Your task to perform on an android device: uninstall "Yahoo Mail" Image 0: 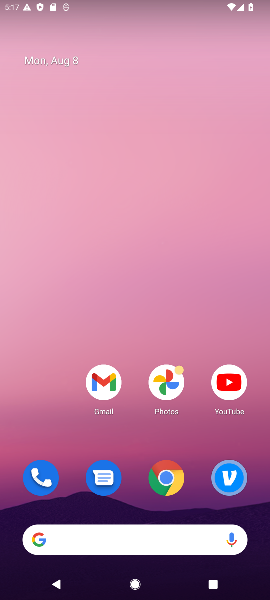
Step 0: drag from (61, 424) to (145, 0)
Your task to perform on an android device: uninstall "Yahoo Mail" Image 1: 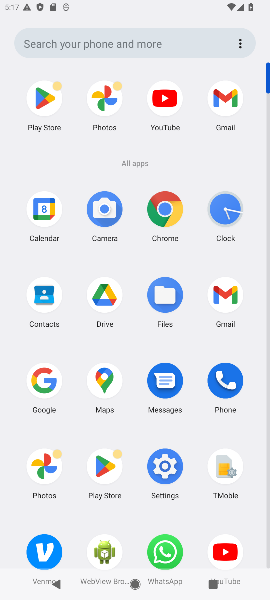
Step 1: drag from (141, 512) to (176, 162)
Your task to perform on an android device: uninstall "Yahoo Mail" Image 2: 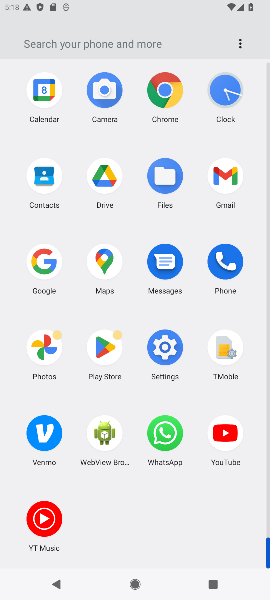
Step 2: click (102, 352)
Your task to perform on an android device: uninstall "Yahoo Mail" Image 3: 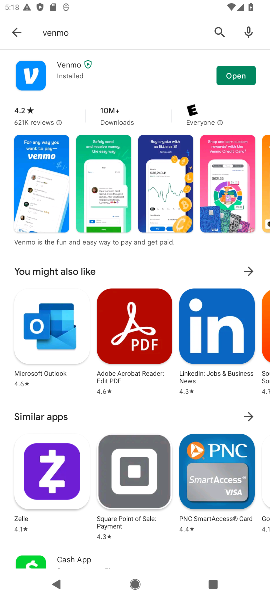
Step 3: click (15, 30)
Your task to perform on an android device: uninstall "Yahoo Mail" Image 4: 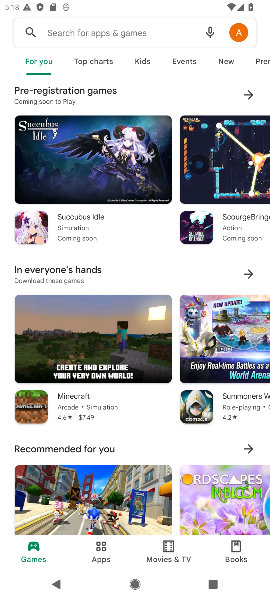
Step 4: click (95, 28)
Your task to perform on an android device: uninstall "Yahoo Mail" Image 5: 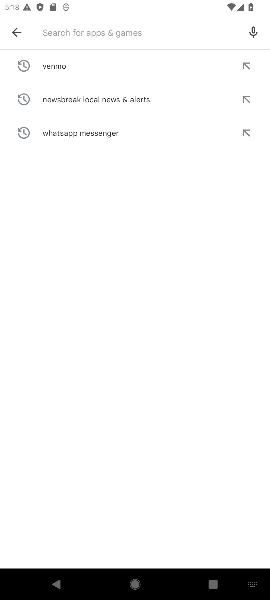
Step 5: type "yahoo mail"
Your task to perform on an android device: uninstall "Yahoo Mail" Image 6: 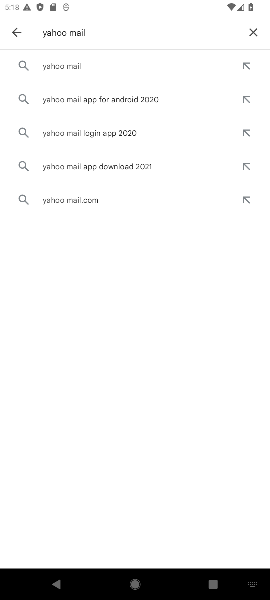
Step 6: click (82, 64)
Your task to perform on an android device: uninstall "Yahoo Mail" Image 7: 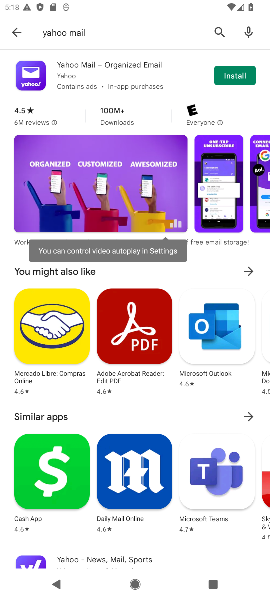
Step 7: task complete